Your task to perform on an android device: open a new tab in the chrome app Image 0: 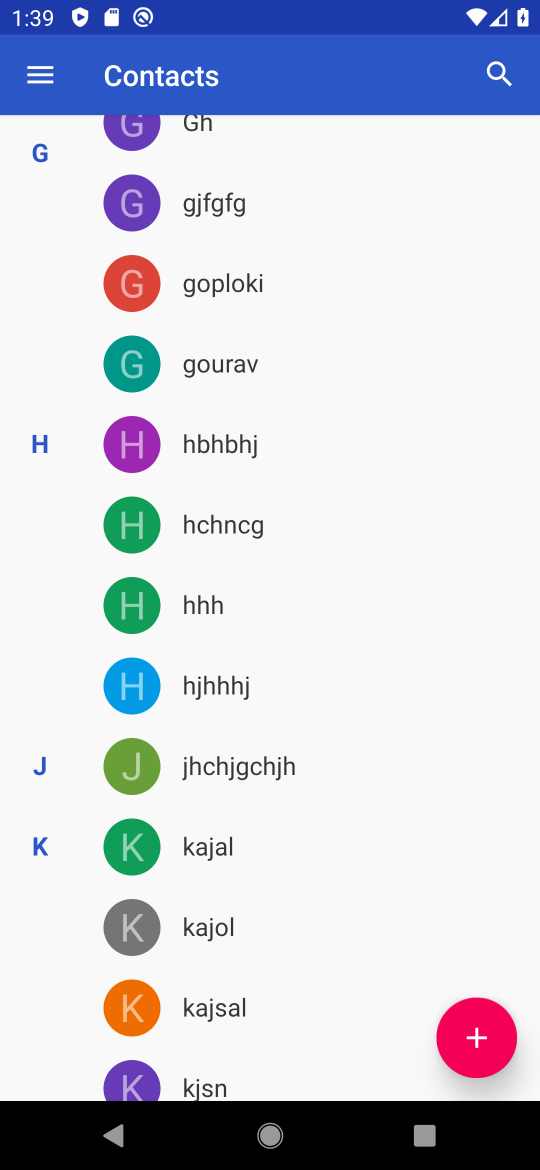
Step 0: press home button
Your task to perform on an android device: open a new tab in the chrome app Image 1: 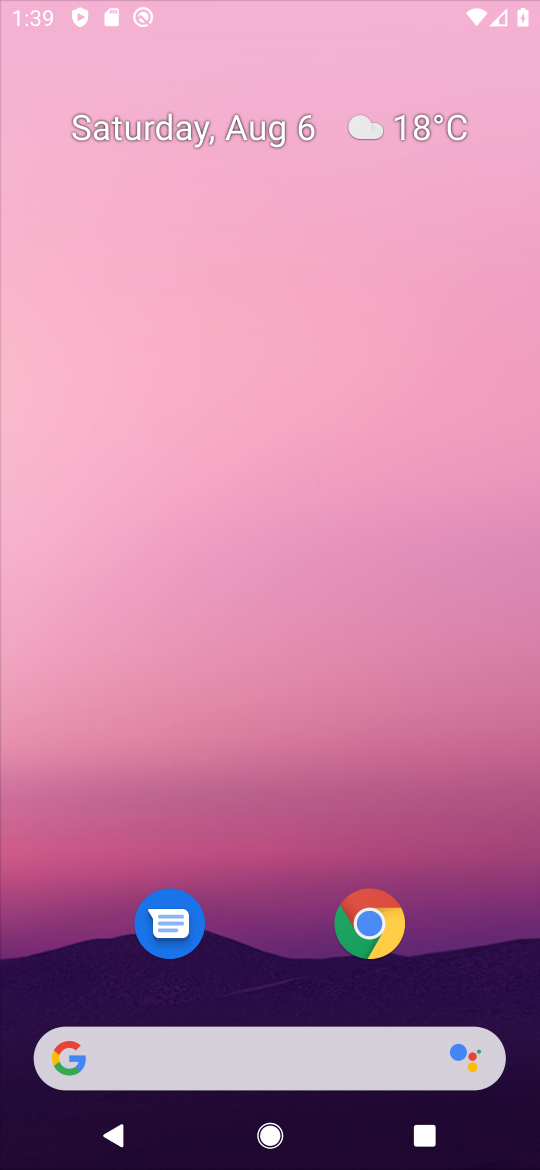
Step 1: drag from (316, 699) to (327, 514)
Your task to perform on an android device: open a new tab in the chrome app Image 2: 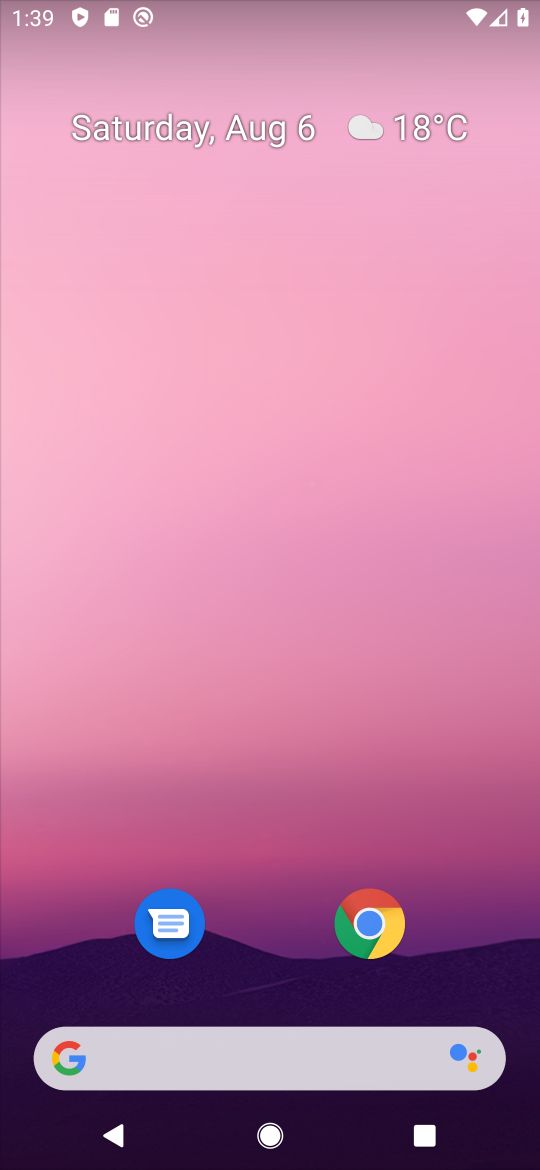
Step 2: drag from (293, 997) to (274, 733)
Your task to perform on an android device: open a new tab in the chrome app Image 3: 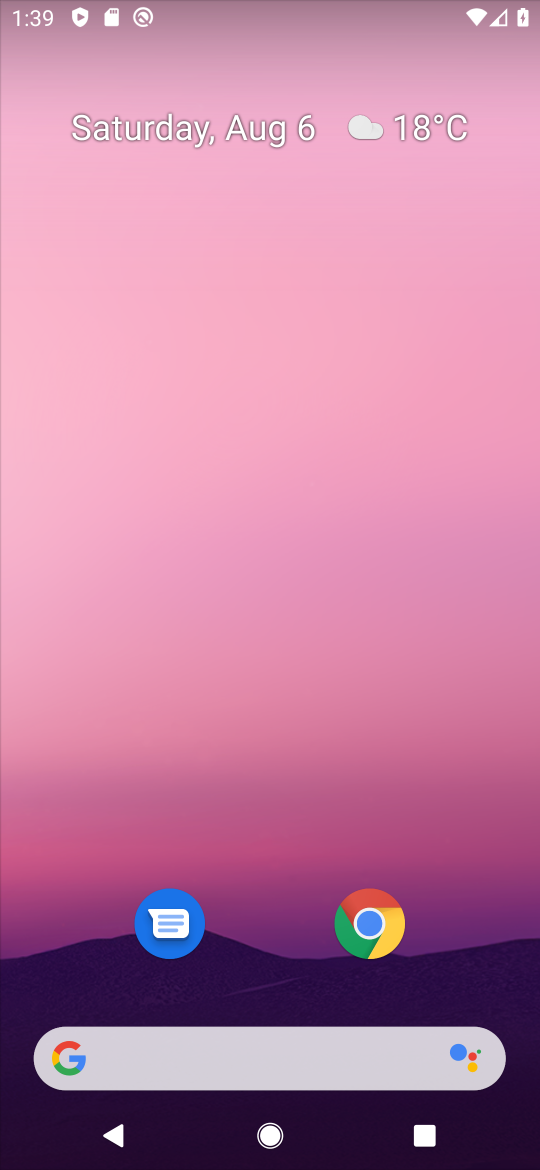
Step 3: click (362, 913)
Your task to perform on an android device: open a new tab in the chrome app Image 4: 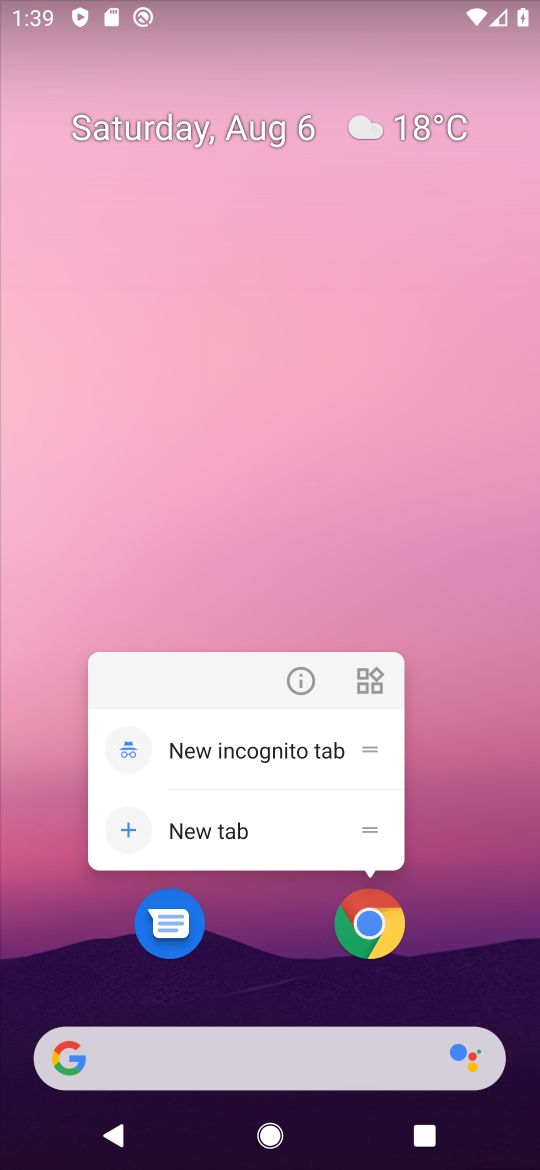
Step 4: click (276, 667)
Your task to perform on an android device: open a new tab in the chrome app Image 5: 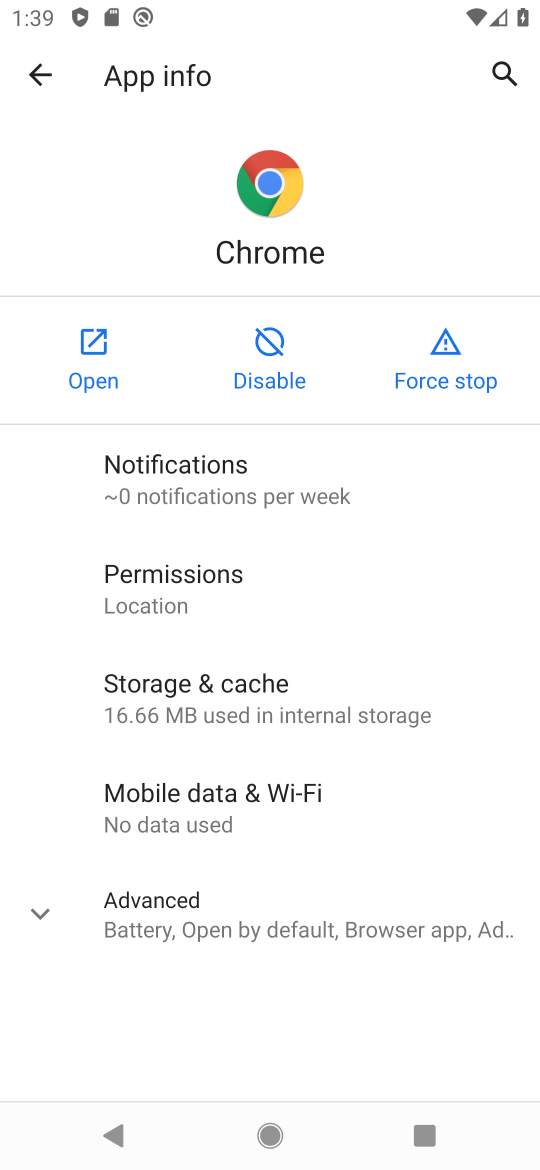
Step 5: click (70, 346)
Your task to perform on an android device: open a new tab in the chrome app Image 6: 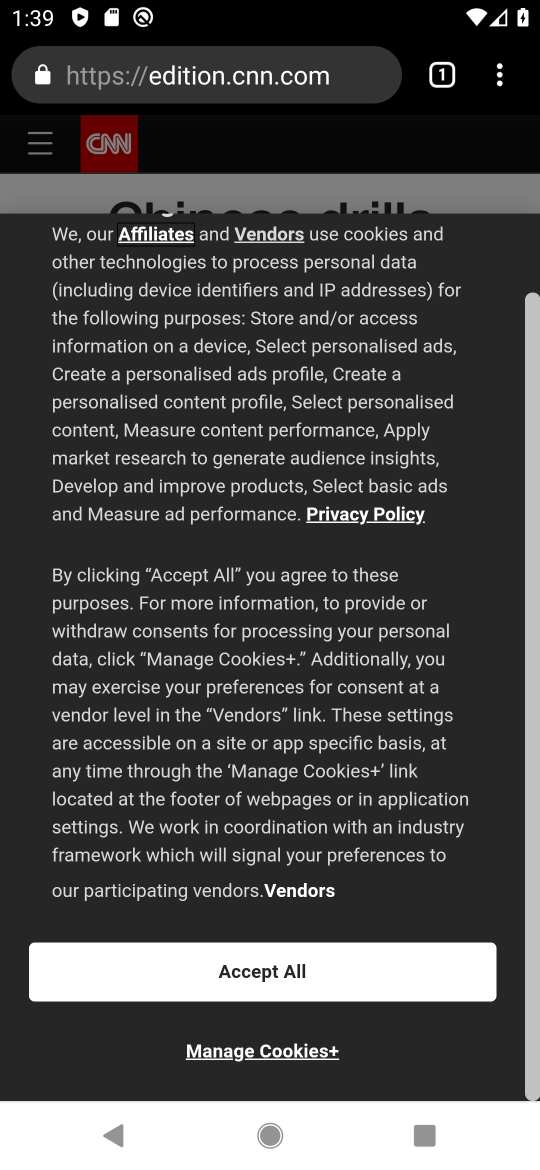
Step 6: drag from (493, 68) to (283, 238)
Your task to perform on an android device: open a new tab in the chrome app Image 7: 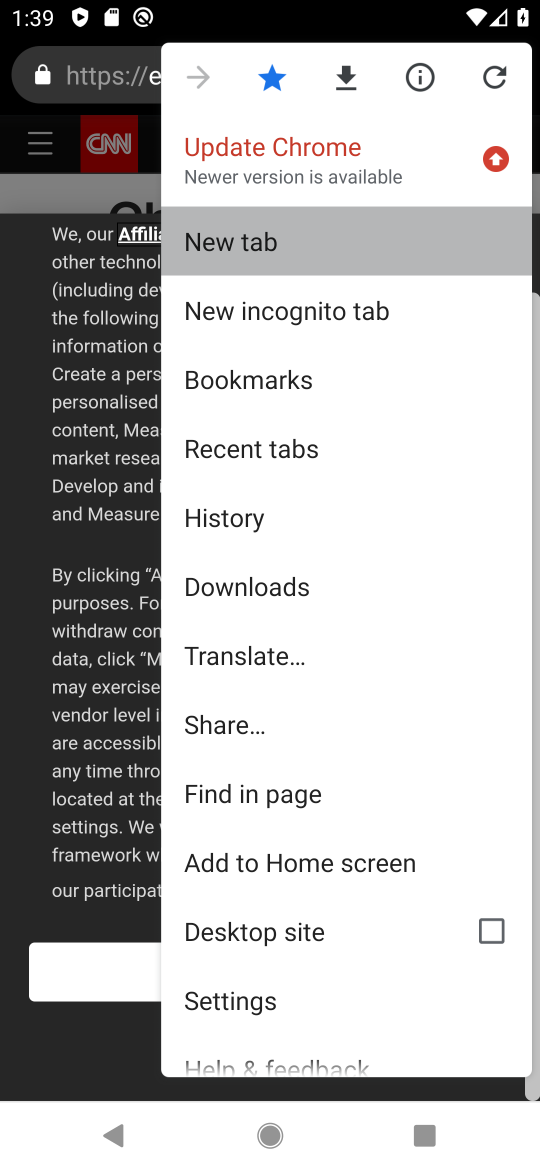
Step 7: click (283, 238)
Your task to perform on an android device: open a new tab in the chrome app Image 8: 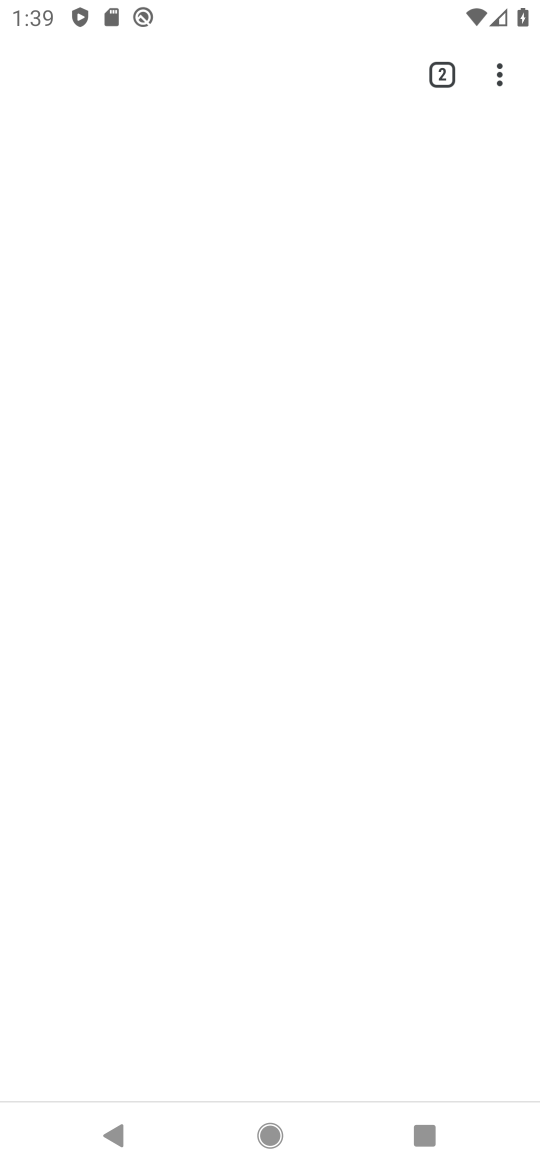
Step 8: task complete